Your task to perform on an android device: Open the phone app and click the voicemail tab. Image 0: 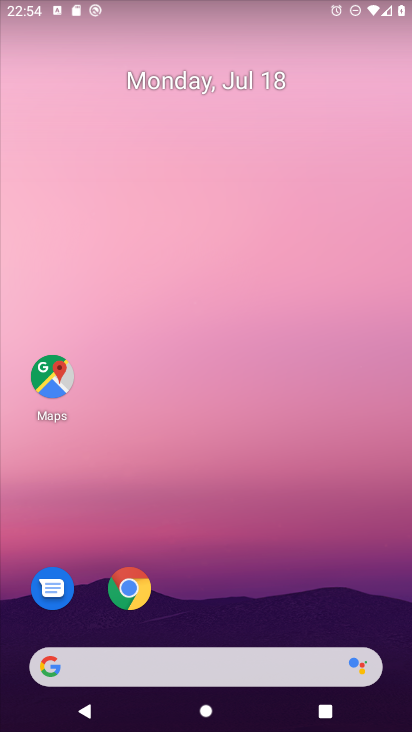
Step 0: drag from (364, 610) to (323, 189)
Your task to perform on an android device: Open the phone app and click the voicemail tab. Image 1: 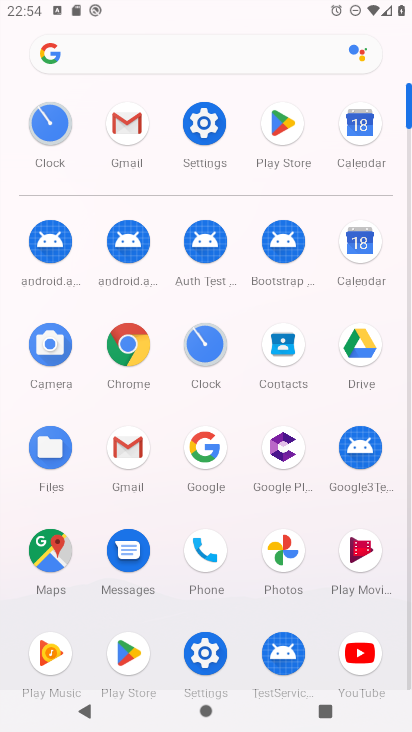
Step 1: click (200, 549)
Your task to perform on an android device: Open the phone app and click the voicemail tab. Image 2: 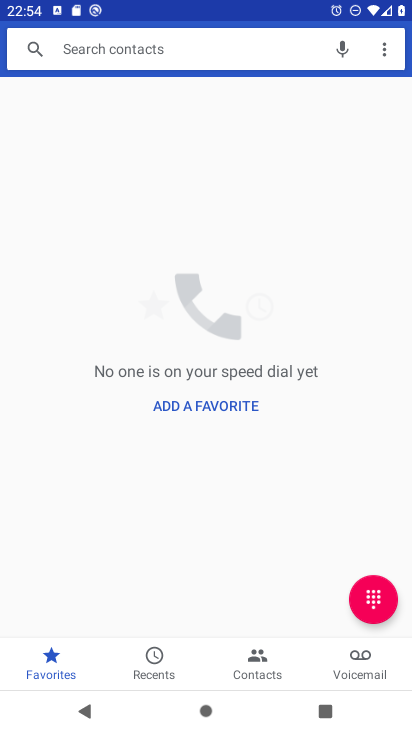
Step 2: click (367, 667)
Your task to perform on an android device: Open the phone app and click the voicemail tab. Image 3: 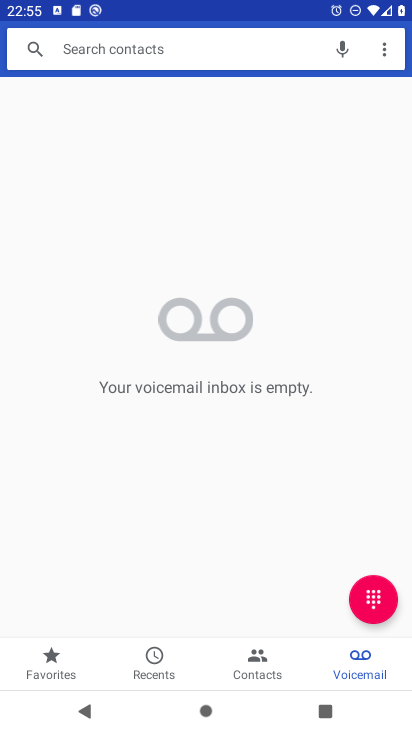
Step 3: task complete